Your task to perform on an android device: Open my contact list Image 0: 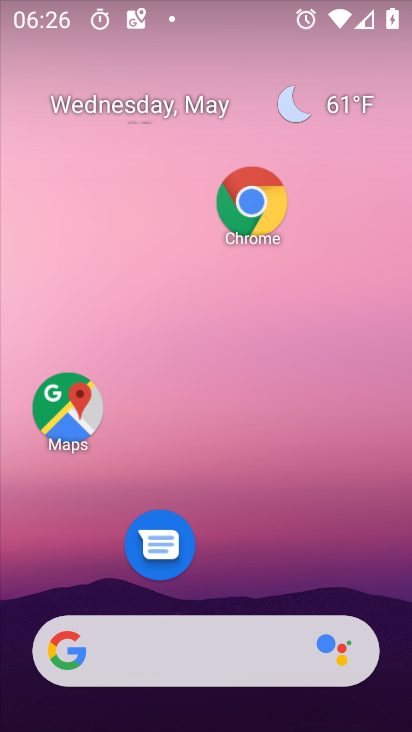
Step 0: drag from (164, 620) to (235, 240)
Your task to perform on an android device: Open my contact list Image 1: 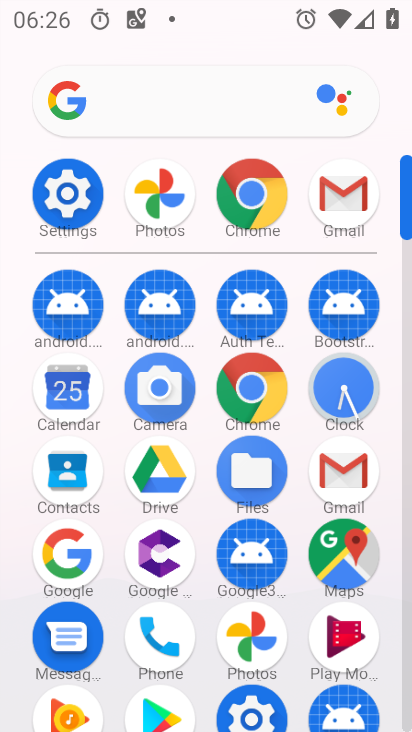
Step 1: click (71, 477)
Your task to perform on an android device: Open my contact list Image 2: 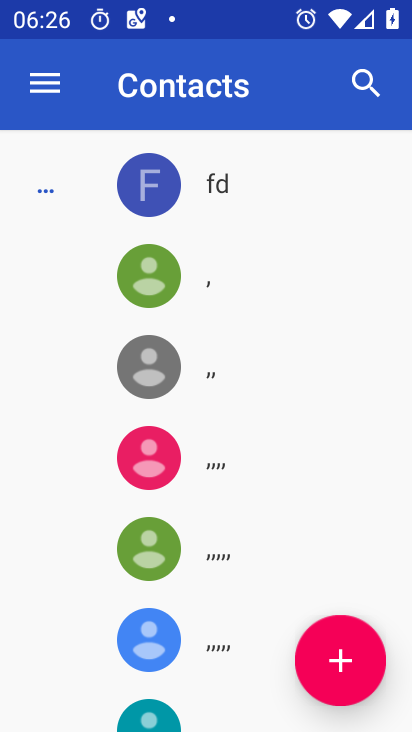
Step 2: task complete